Your task to perform on an android device: Open my contact list Image 0: 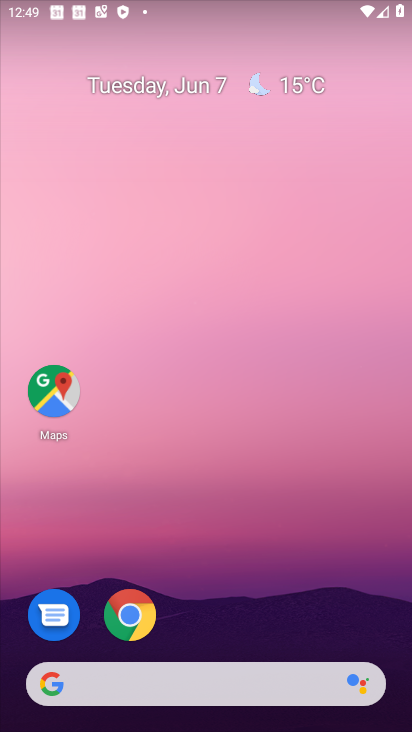
Step 0: drag from (191, 634) to (249, 16)
Your task to perform on an android device: Open my contact list Image 1: 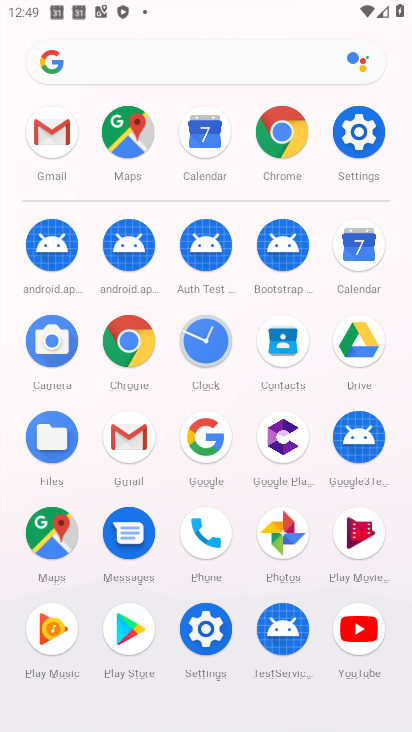
Step 1: click (272, 354)
Your task to perform on an android device: Open my contact list Image 2: 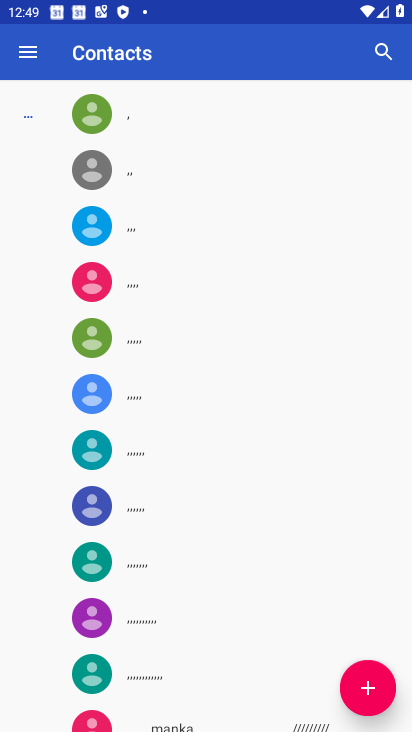
Step 2: task complete